Your task to perform on an android device: find which apps use the phone's location Image 0: 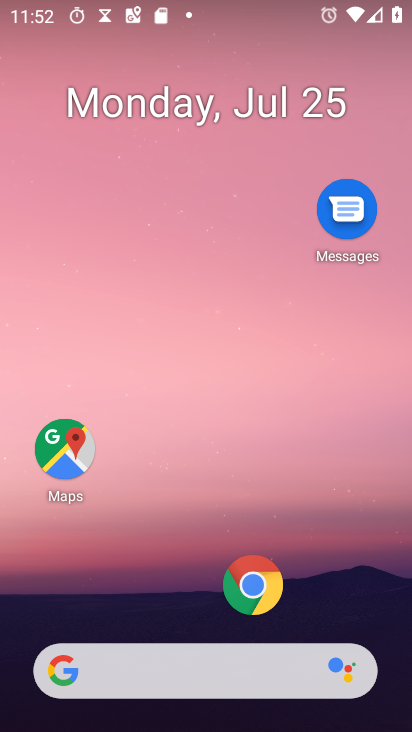
Step 0: press home button
Your task to perform on an android device: find which apps use the phone's location Image 1: 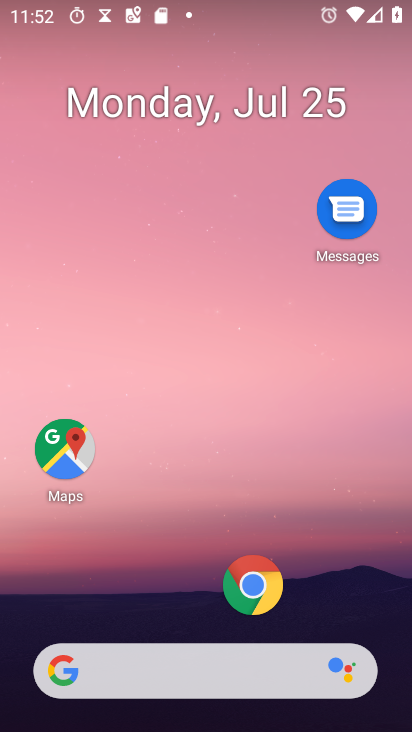
Step 1: drag from (228, 681) to (254, 42)
Your task to perform on an android device: find which apps use the phone's location Image 2: 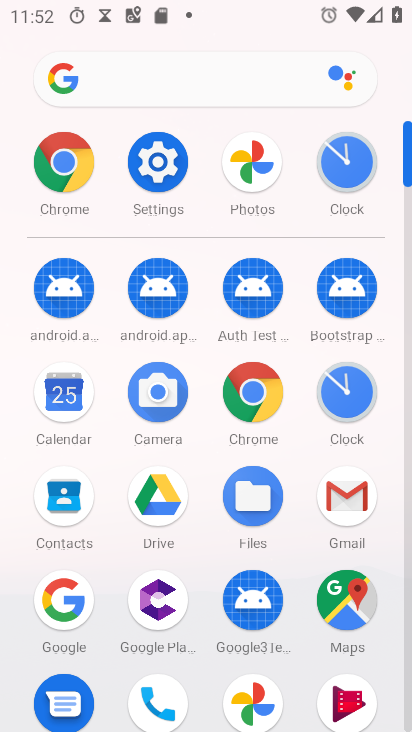
Step 2: click (148, 161)
Your task to perform on an android device: find which apps use the phone's location Image 3: 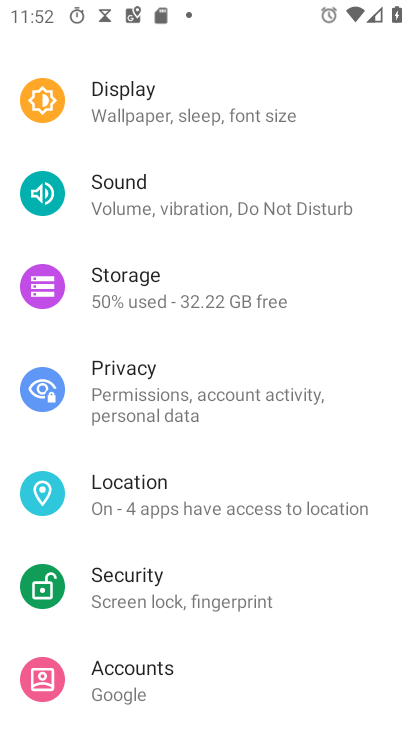
Step 3: click (140, 492)
Your task to perform on an android device: find which apps use the phone's location Image 4: 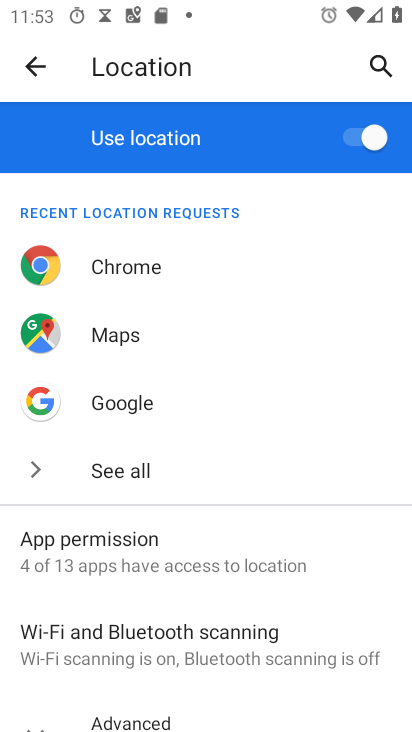
Step 4: click (104, 543)
Your task to perform on an android device: find which apps use the phone's location Image 5: 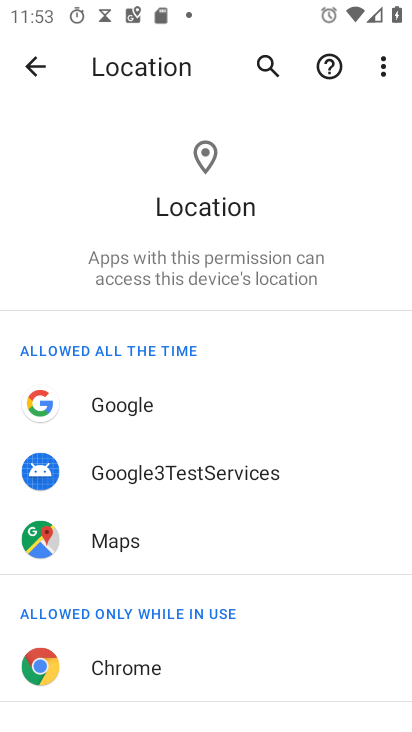
Step 5: drag from (212, 598) to (331, 253)
Your task to perform on an android device: find which apps use the phone's location Image 6: 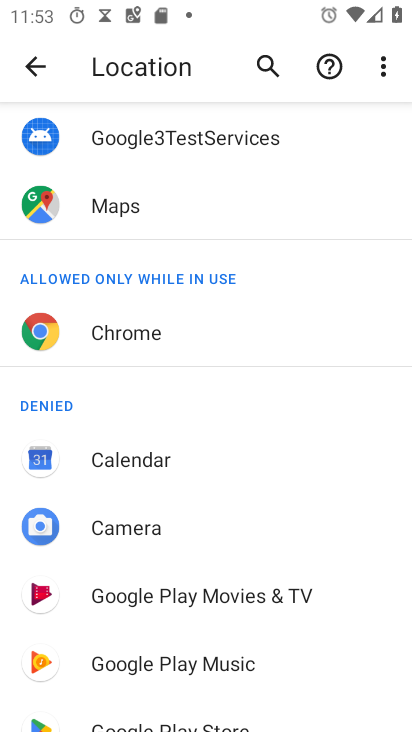
Step 6: drag from (298, 692) to (406, 83)
Your task to perform on an android device: find which apps use the phone's location Image 7: 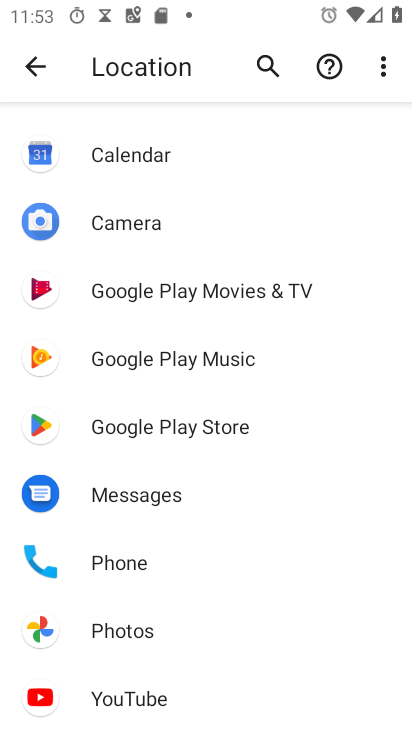
Step 7: click (105, 566)
Your task to perform on an android device: find which apps use the phone's location Image 8: 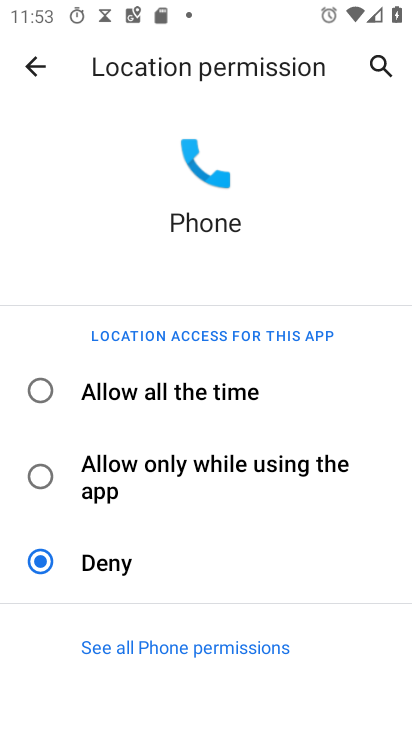
Step 8: task complete